Your task to perform on an android device: turn off airplane mode Image 0: 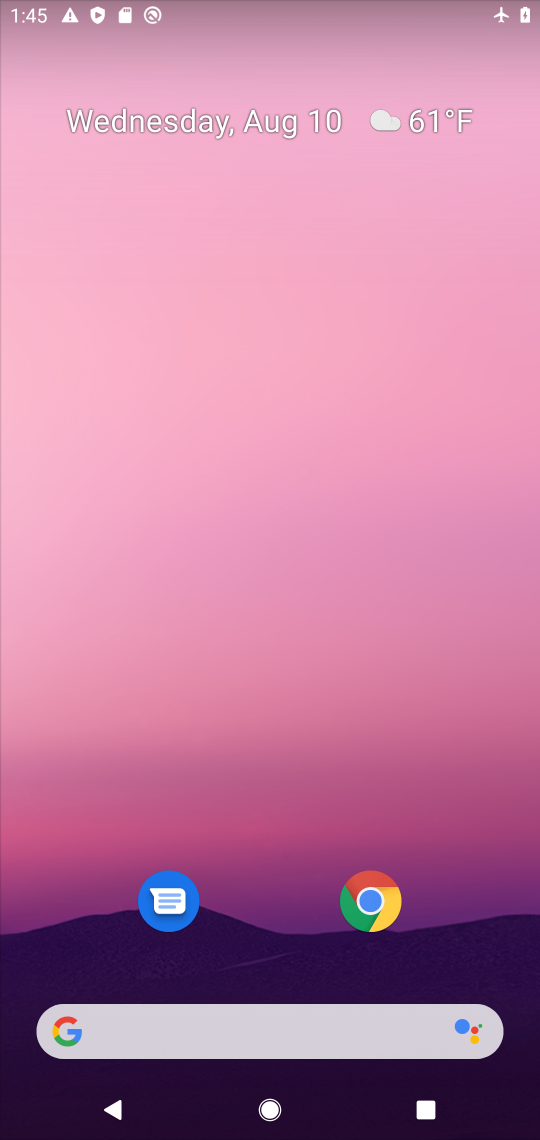
Step 0: click (190, 5)
Your task to perform on an android device: turn off airplane mode Image 1: 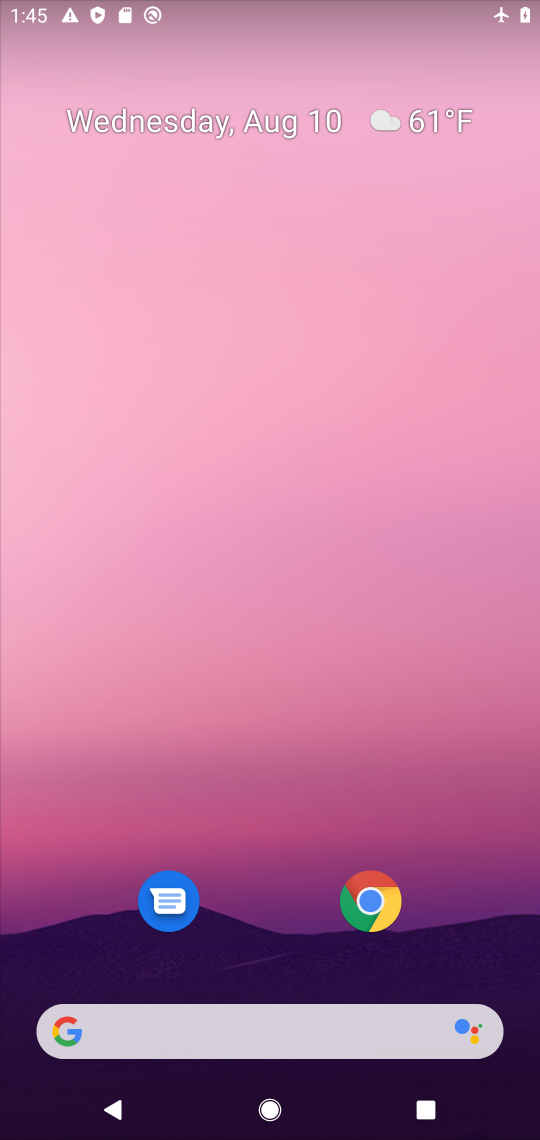
Step 1: drag from (292, 933) to (256, 177)
Your task to perform on an android device: turn off airplane mode Image 2: 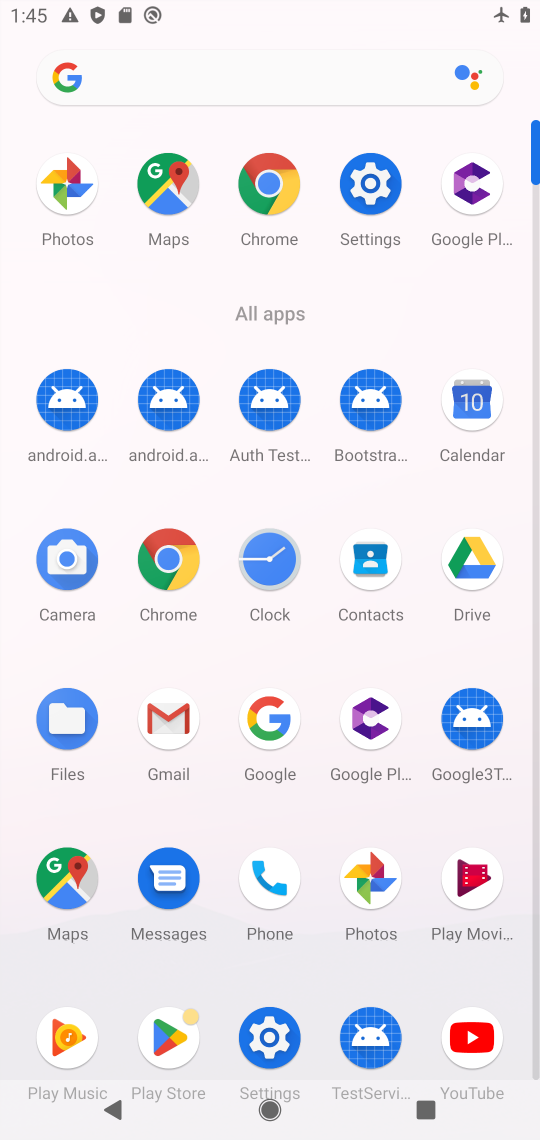
Step 2: click (375, 181)
Your task to perform on an android device: turn off airplane mode Image 3: 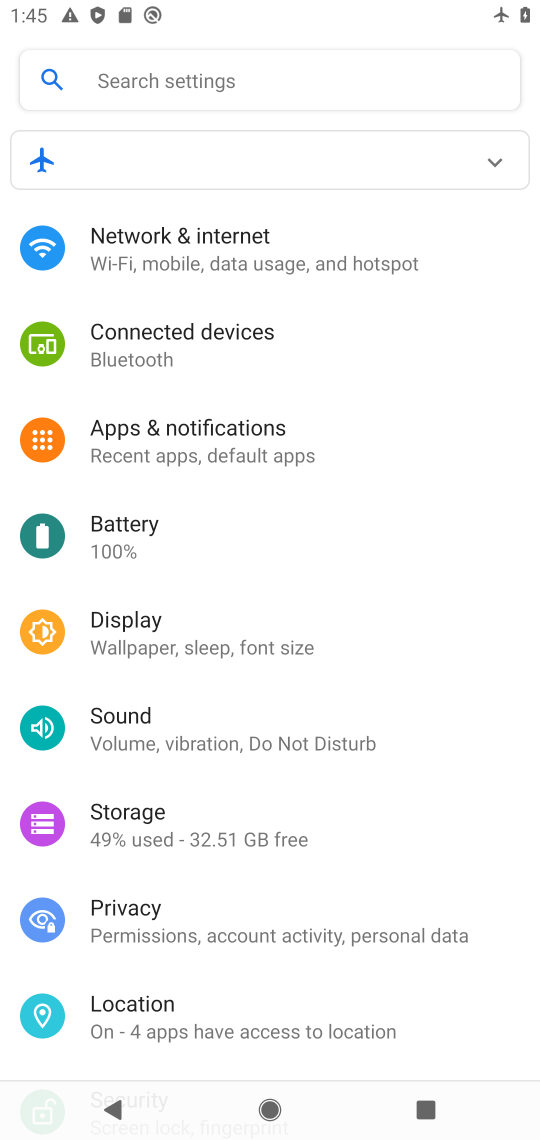
Step 3: click (177, 229)
Your task to perform on an android device: turn off airplane mode Image 4: 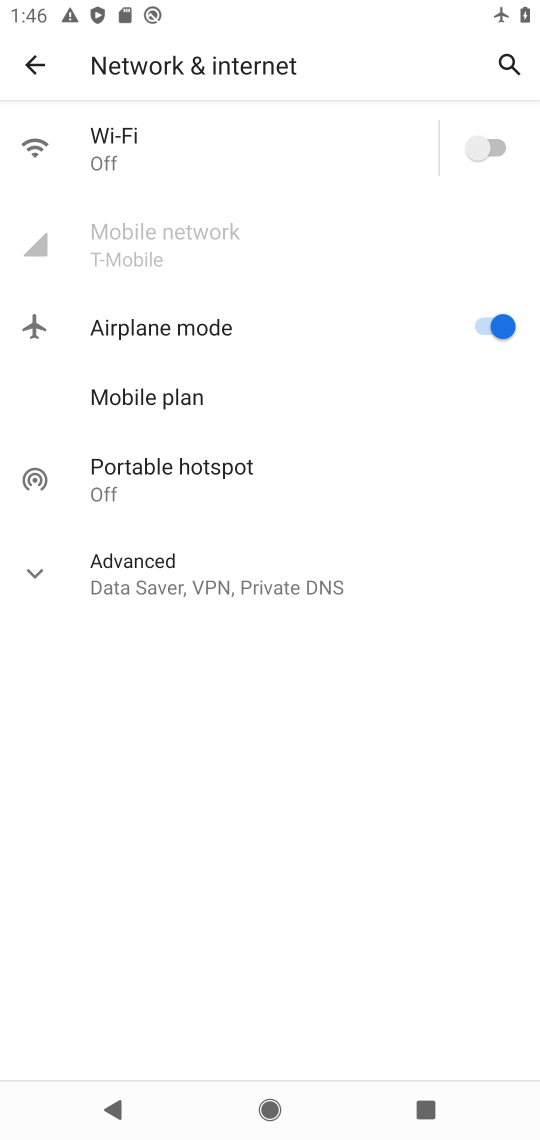
Step 4: click (484, 326)
Your task to perform on an android device: turn off airplane mode Image 5: 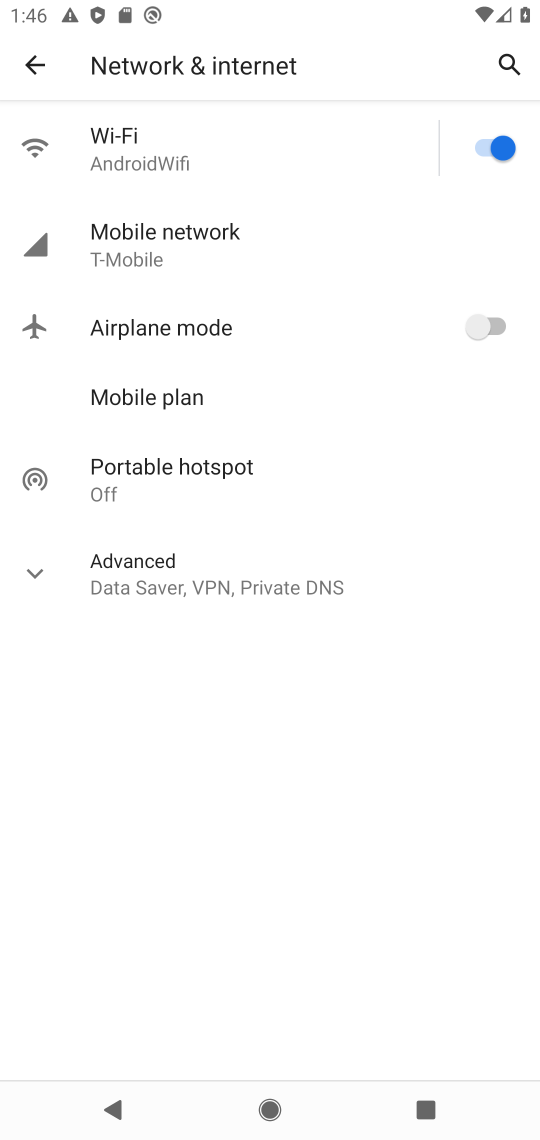
Step 5: task complete